Your task to perform on an android device: Toggle the flashlight Image 0: 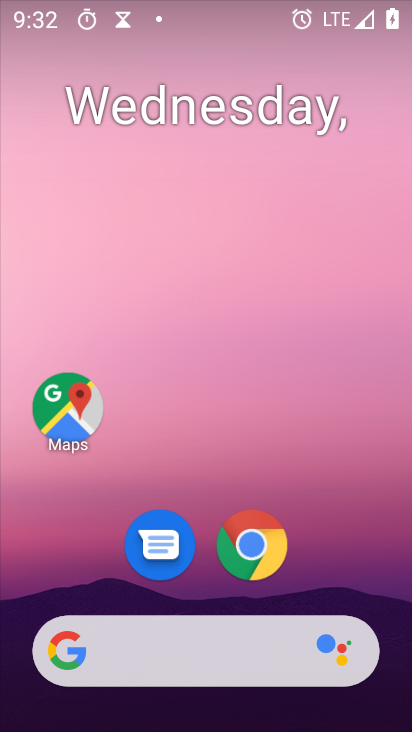
Step 0: press home button
Your task to perform on an android device: Toggle the flashlight Image 1: 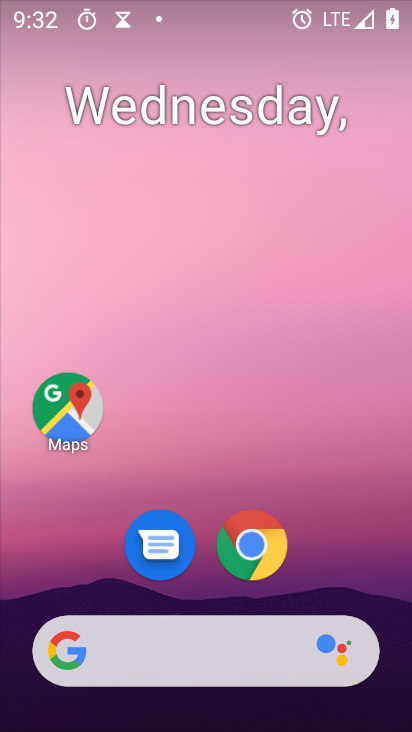
Step 1: task complete